Your task to perform on an android device: Go to location settings Image 0: 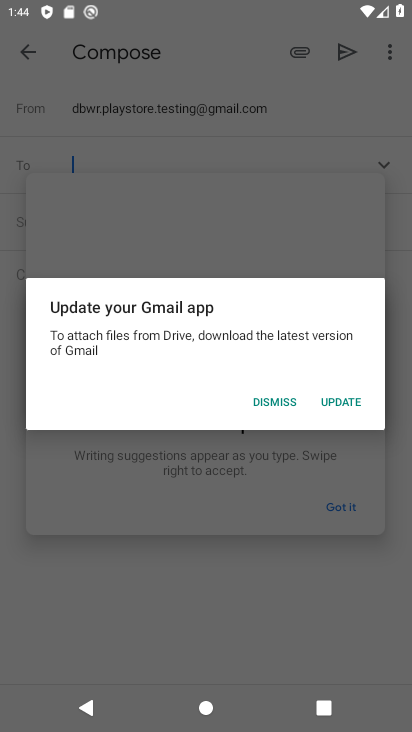
Step 0: press home button
Your task to perform on an android device: Go to location settings Image 1: 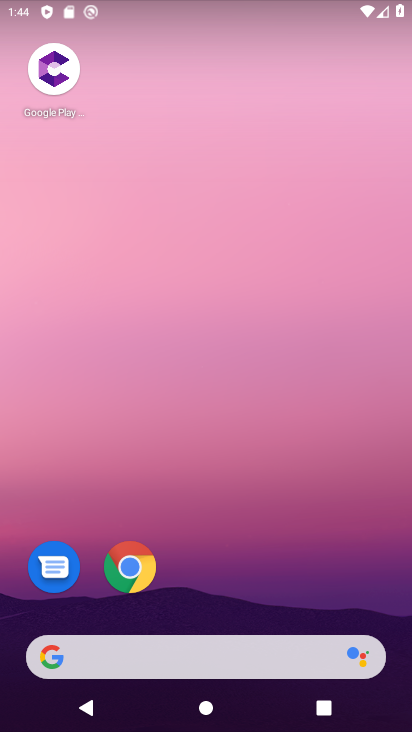
Step 1: drag from (201, 595) to (196, 175)
Your task to perform on an android device: Go to location settings Image 2: 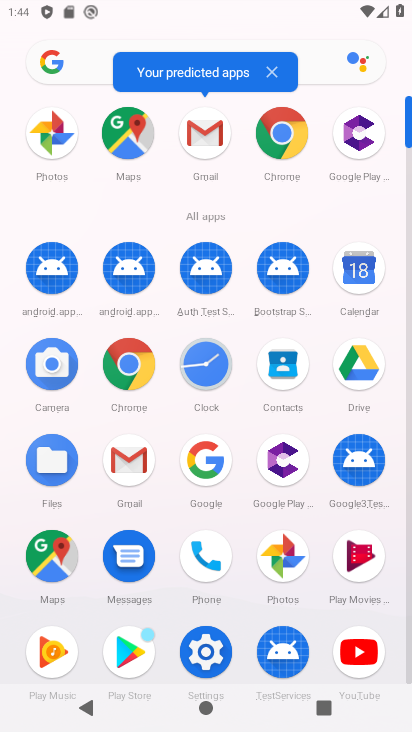
Step 2: click (206, 631)
Your task to perform on an android device: Go to location settings Image 3: 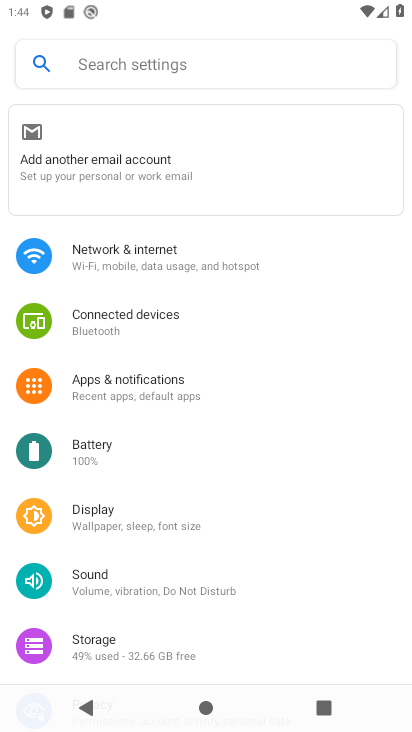
Step 3: drag from (172, 607) to (215, 339)
Your task to perform on an android device: Go to location settings Image 4: 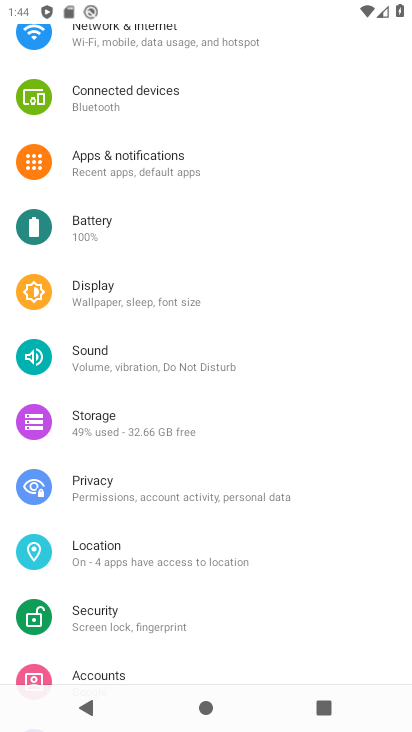
Step 4: click (165, 554)
Your task to perform on an android device: Go to location settings Image 5: 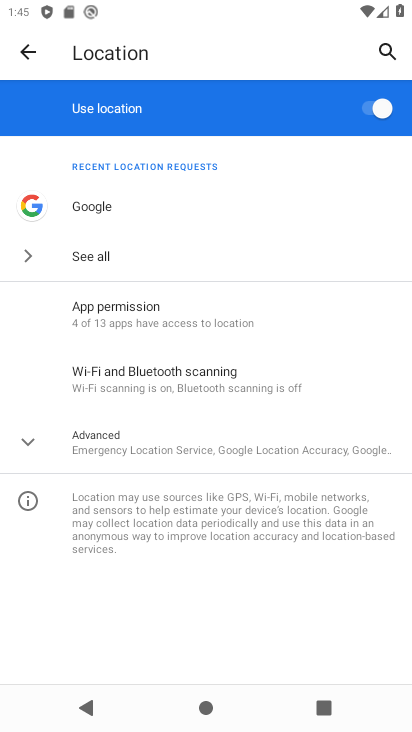
Step 5: task complete